Your task to perform on an android device: change notification settings in the gmail app Image 0: 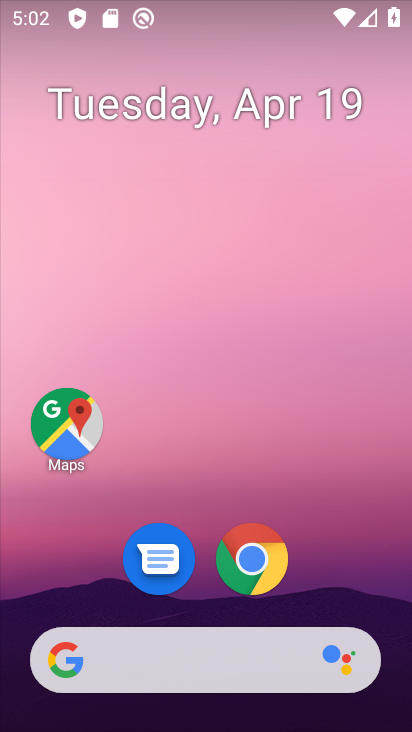
Step 0: drag from (365, 592) to (374, 278)
Your task to perform on an android device: change notification settings in the gmail app Image 1: 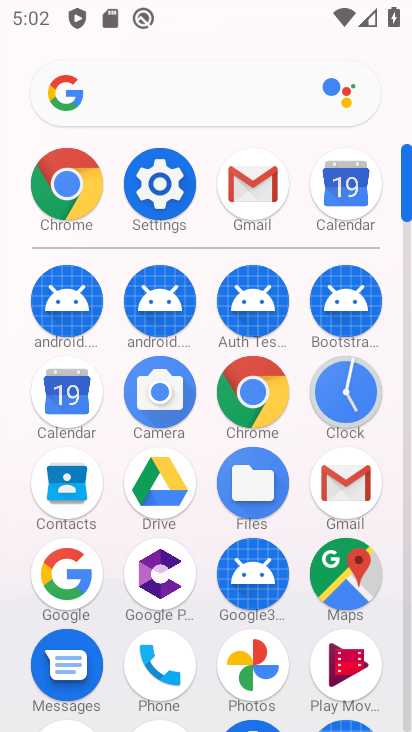
Step 1: click (254, 210)
Your task to perform on an android device: change notification settings in the gmail app Image 2: 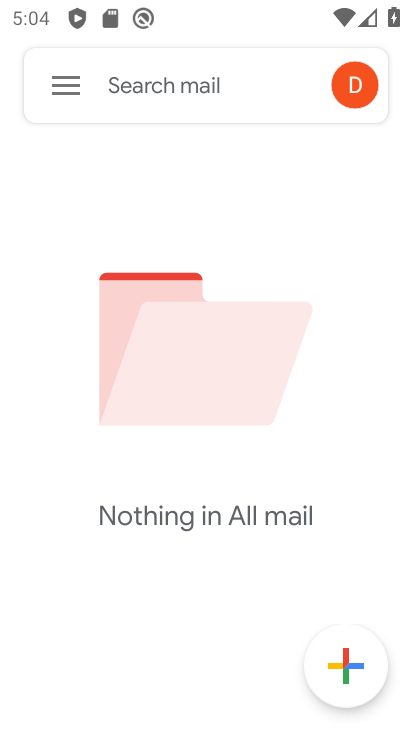
Step 2: task complete